Your task to perform on an android device: Open my contact list Image 0: 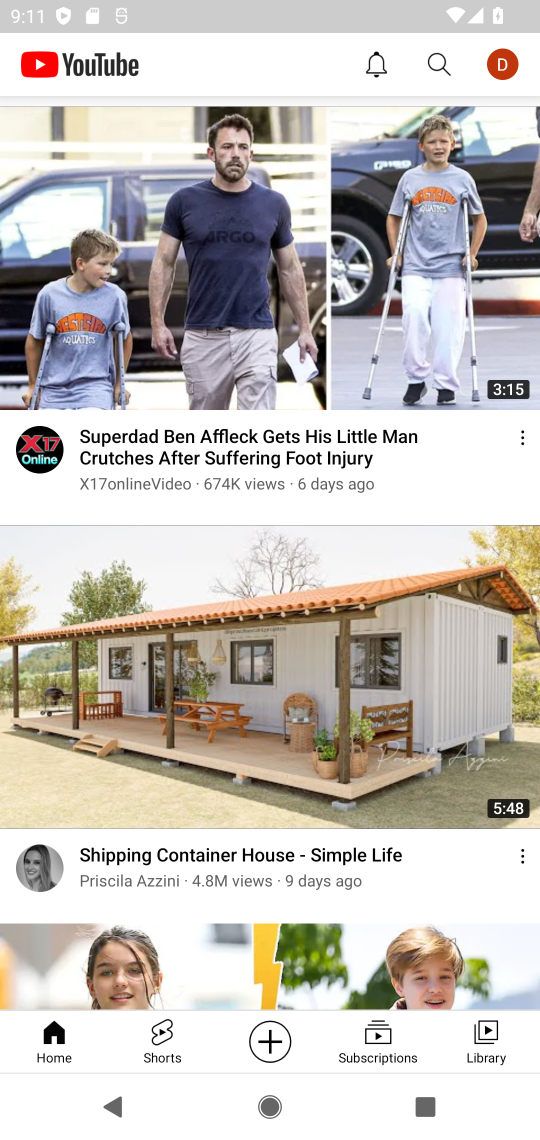
Step 0: press home button
Your task to perform on an android device: Open my contact list Image 1: 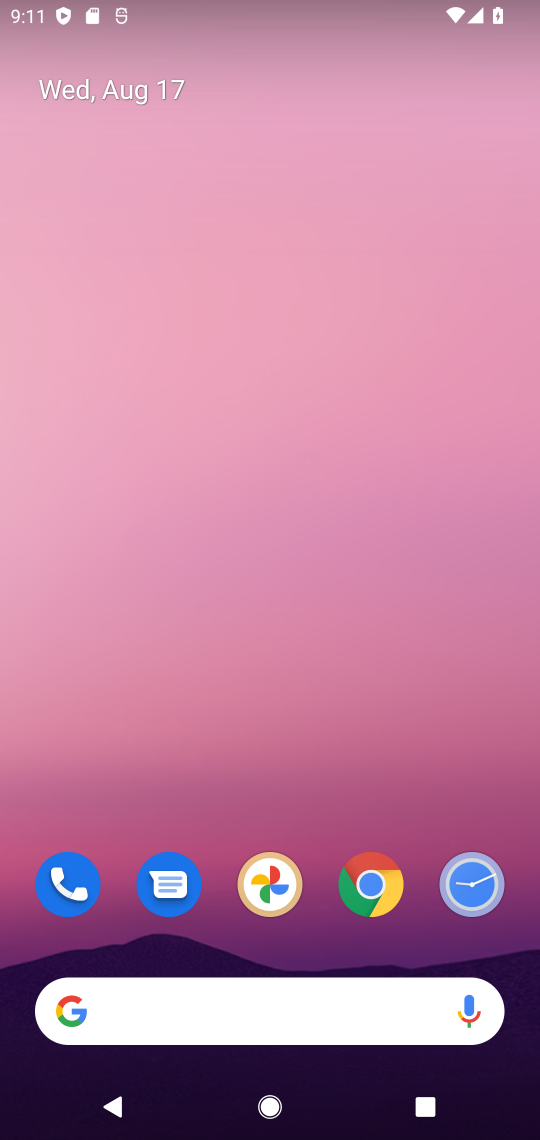
Step 1: drag from (210, 587) to (212, 155)
Your task to perform on an android device: Open my contact list Image 2: 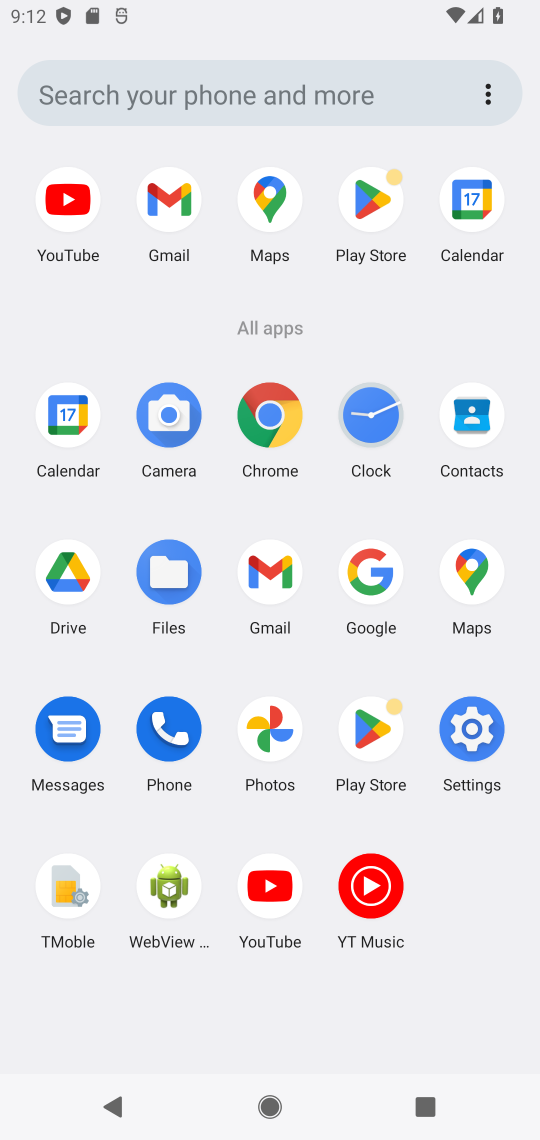
Step 2: click (469, 428)
Your task to perform on an android device: Open my contact list Image 3: 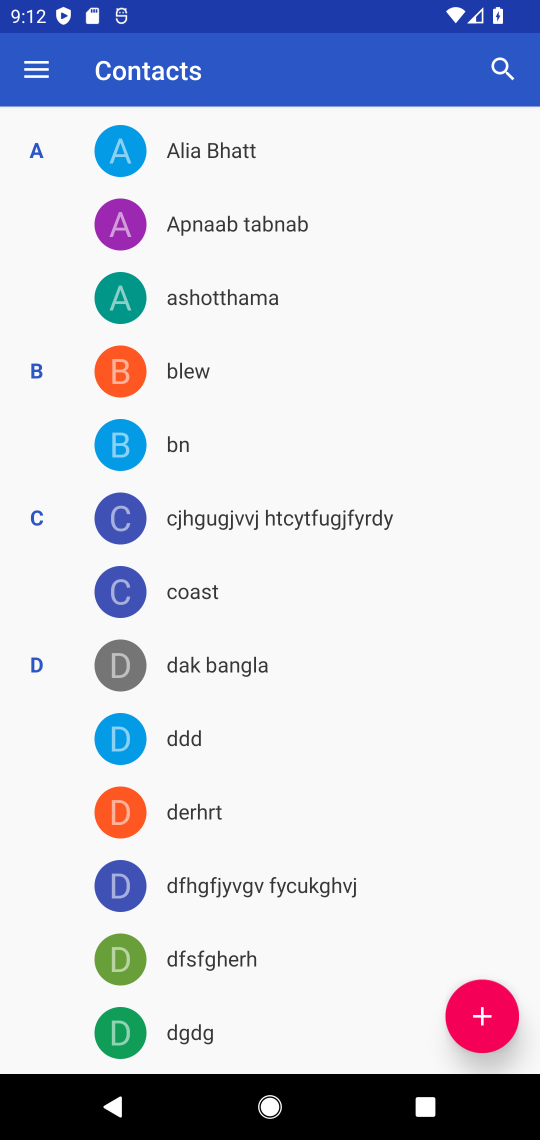
Step 3: task complete